Your task to perform on an android device: move an email to a new category in the gmail app Image 0: 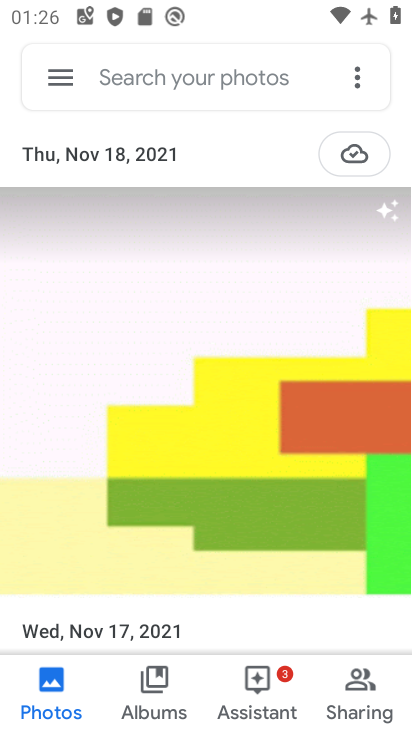
Step 0: press home button
Your task to perform on an android device: move an email to a new category in the gmail app Image 1: 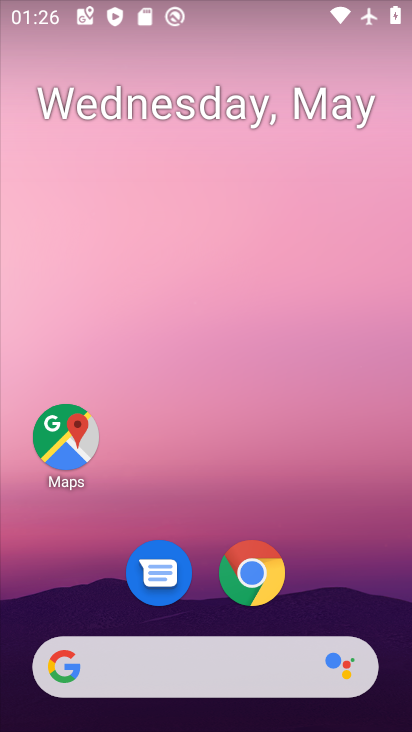
Step 1: drag from (326, 499) to (309, 229)
Your task to perform on an android device: move an email to a new category in the gmail app Image 2: 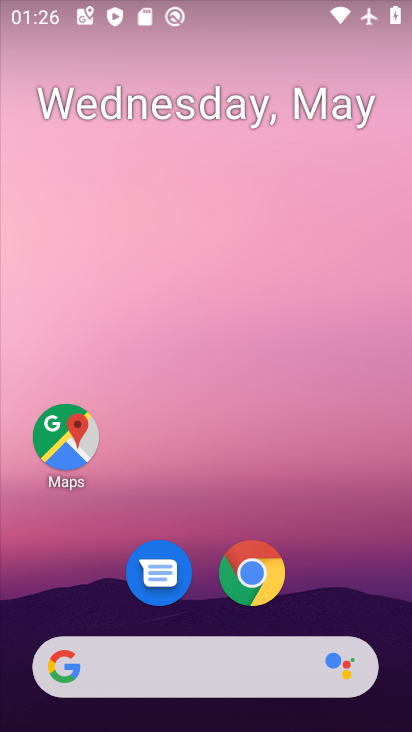
Step 2: drag from (298, 616) to (313, 233)
Your task to perform on an android device: move an email to a new category in the gmail app Image 3: 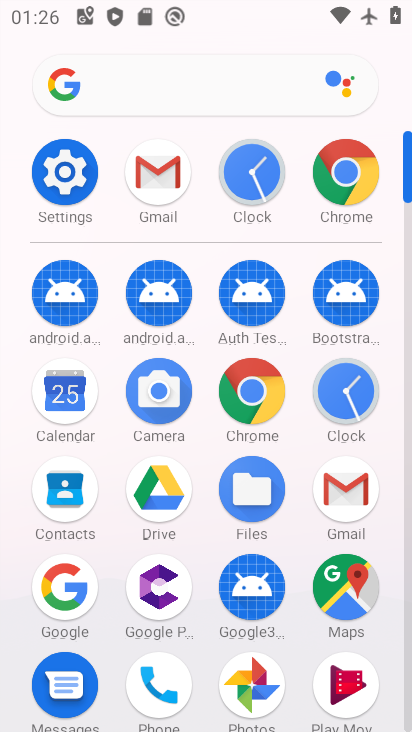
Step 3: click (140, 171)
Your task to perform on an android device: move an email to a new category in the gmail app Image 4: 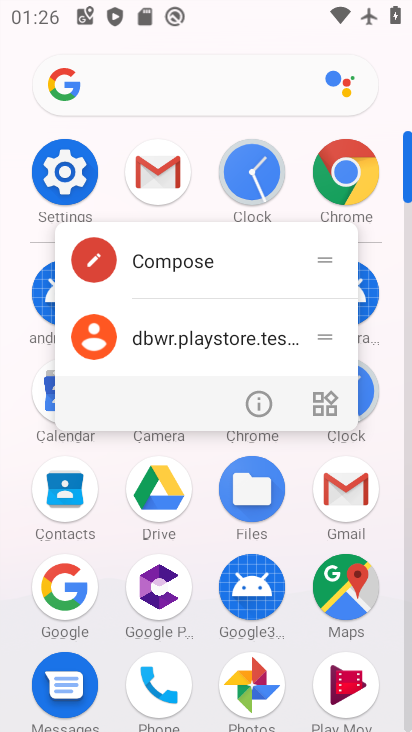
Step 4: click (152, 173)
Your task to perform on an android device: move an email to a new category in the gmail app Image 5: 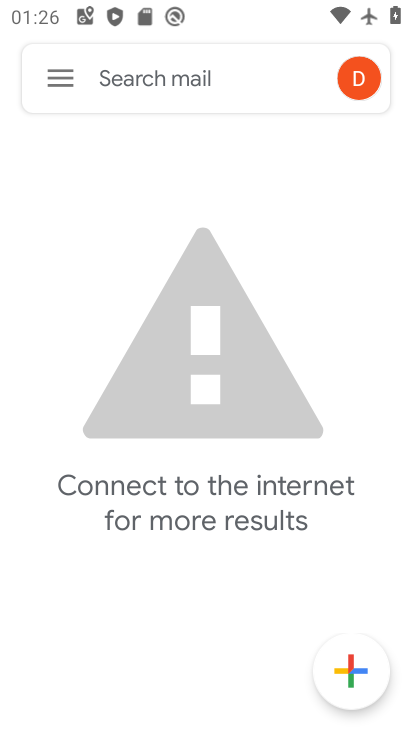
Step 5: click (74, 85)
Your task to perform on an android device: move an email to a new category in the gmail app Image 6: 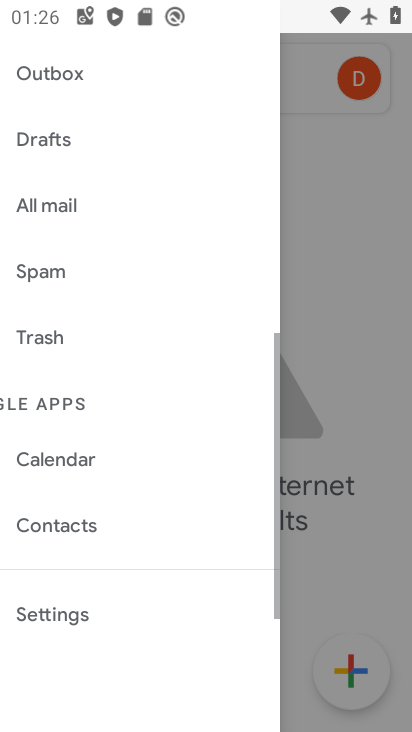
Step 6: click (61, 71)
Your task to perform on an android device: move an email to a new category in the gmail app Image 7: 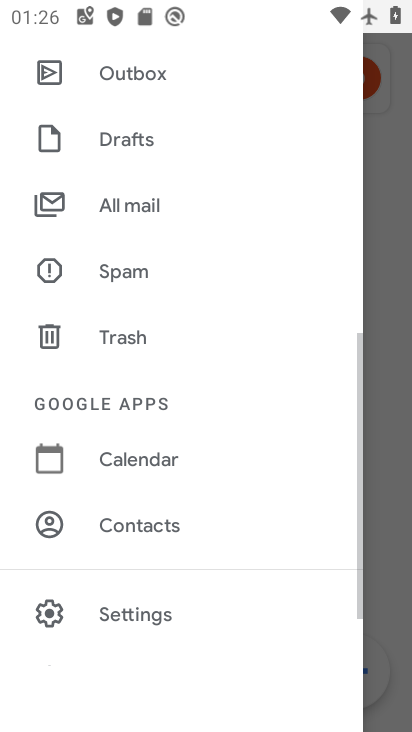
Step 7: drag from (211, 137) to (126, 622)
Your task to perform on an android device: move an email to a new category in the gmail app Image 8: 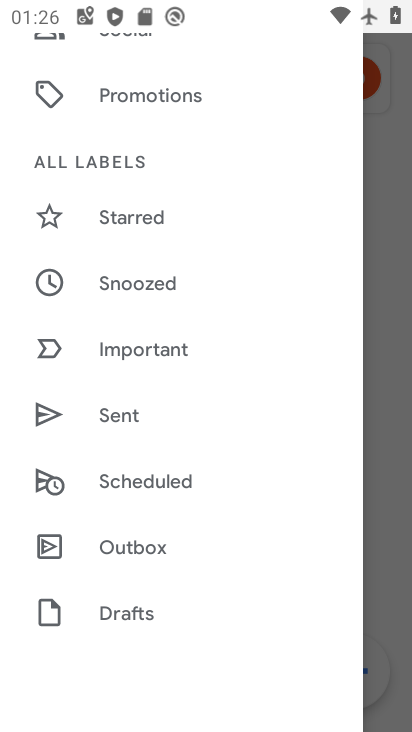
Step 8: drag from (121, 592) to (167, 305)
Your task to perform on an android device: move an email to a new category in the gmail app Image 9: 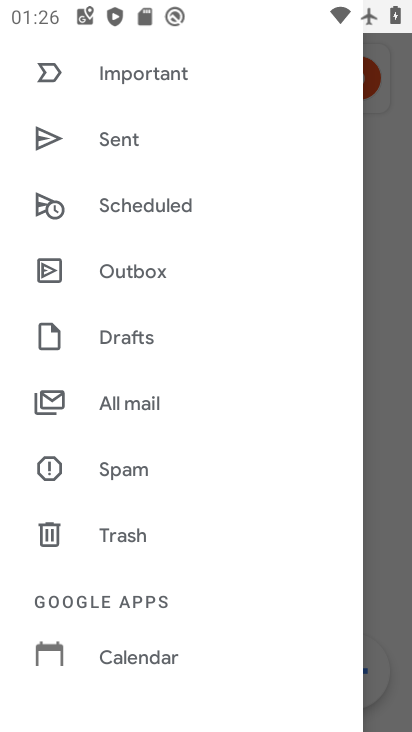
Step 9: click (132, 389)
Your task to perform on an android device: move an email to a new category in the gmail app Image 10: 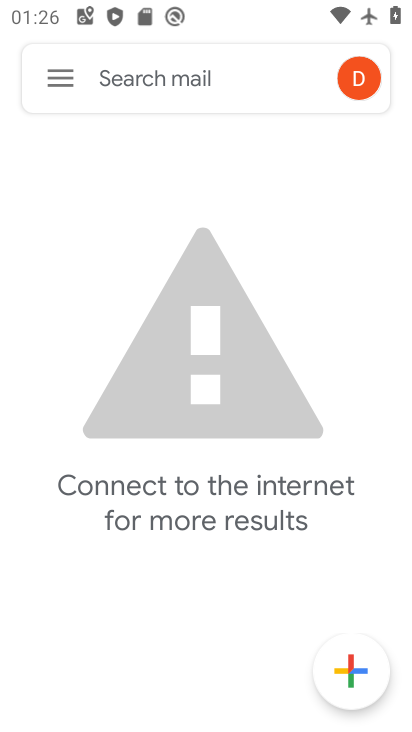
Step 10: task complete